Your task to perform on an android device: install app "Skype" Image 0: 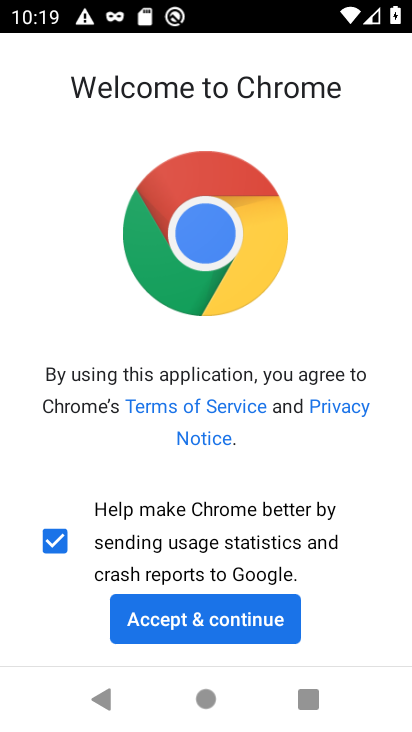
Step 0: press home button
Your task to perform on an android device: install app "Skype" Image 1: 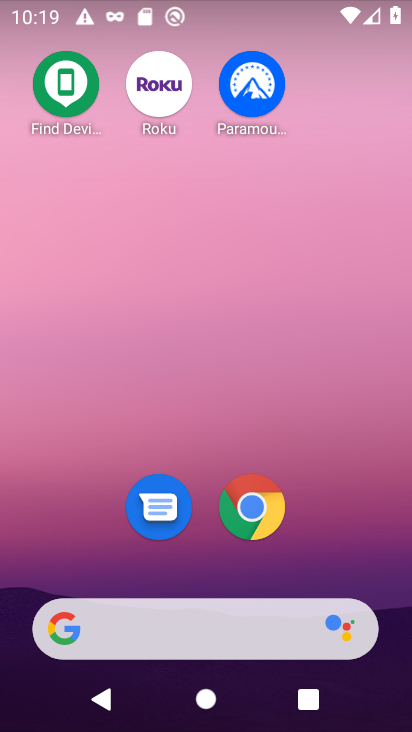
Step 1: drag from (180, 637) to (246, 189)
Your task to perform on an android device: install app "Skype" Image 2: 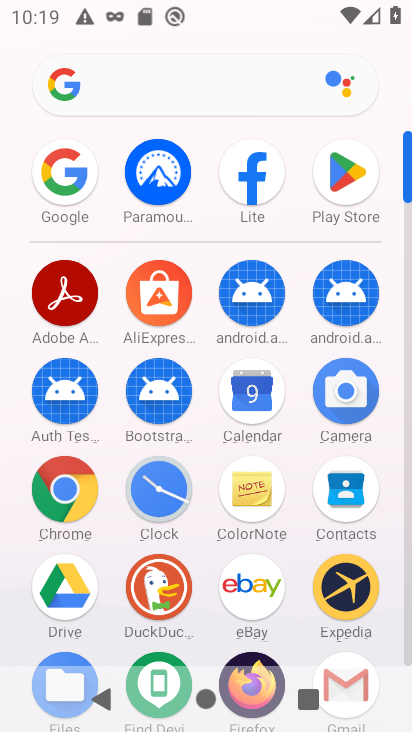
Step 2: click (347, 176)
Your task to perform on an android device: install app "Skype" Image 3: 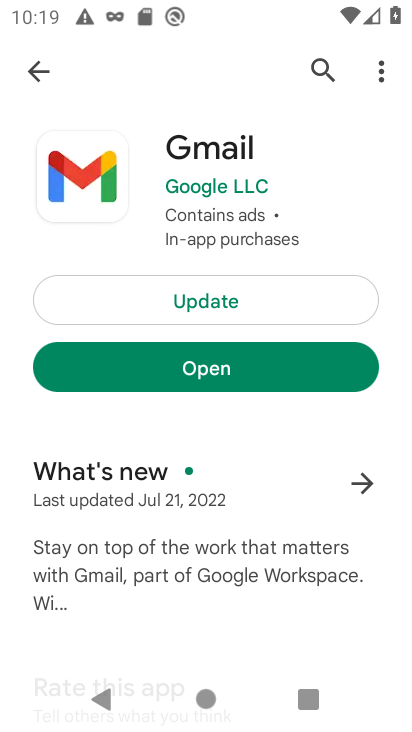
Step 3: click (327, 74)
Your task to perform on an android device: install app "Skype" Image 4: 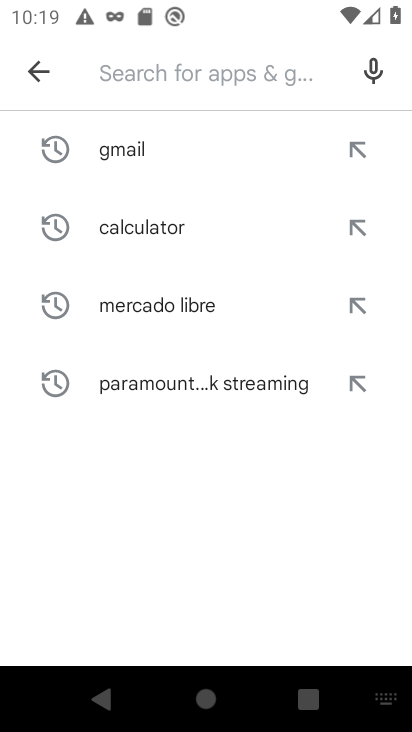
Step 4: type "Skype"
Your task to perform on an android device: install app "Skype" Image 5: 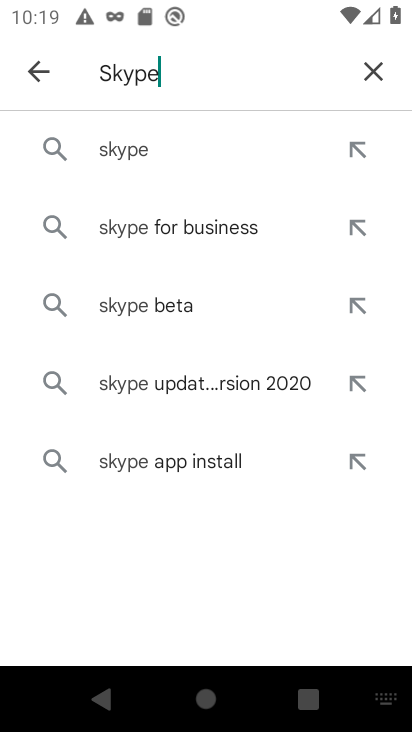
Step 5: click (129, 153)
Your task to perform on an android device: install app "Skype" Image 6: 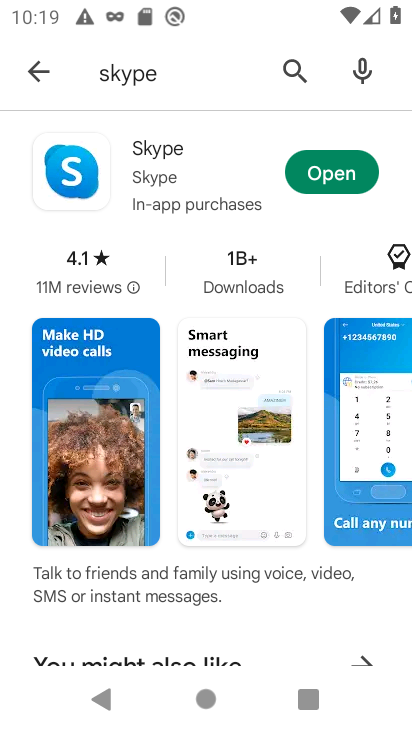
Step 6: click (140, 144)
Your task to perform on an android device: install app "Skype" Image 7: 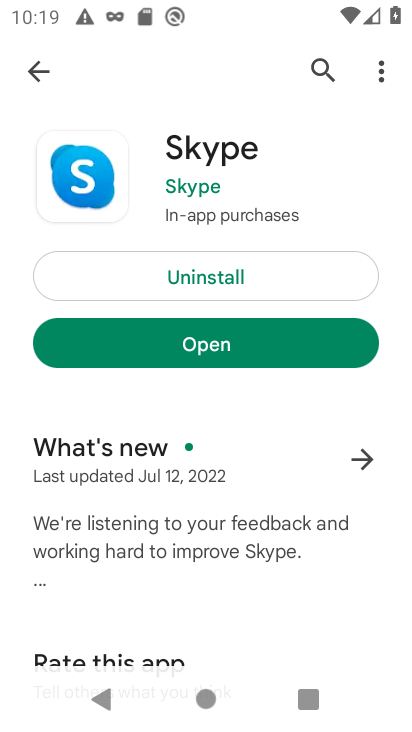
Step 7: task complete